Your task to perform on an android device: toggle data saver in the chrome app Image 0: 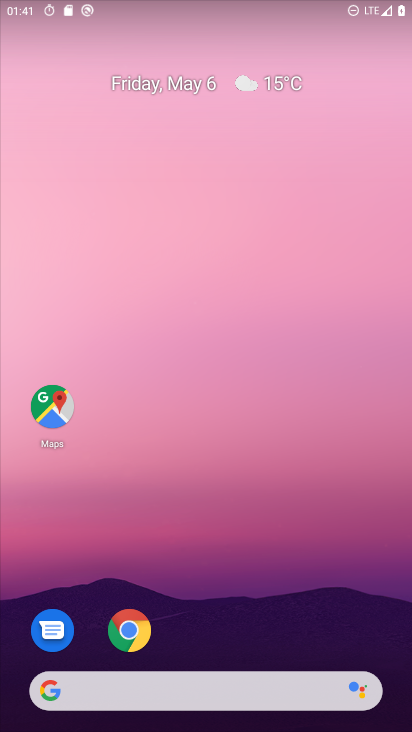
Step 0: click (123, 621)
Your task to perform on an android device: toggle data saver in the chrome app Image 1: 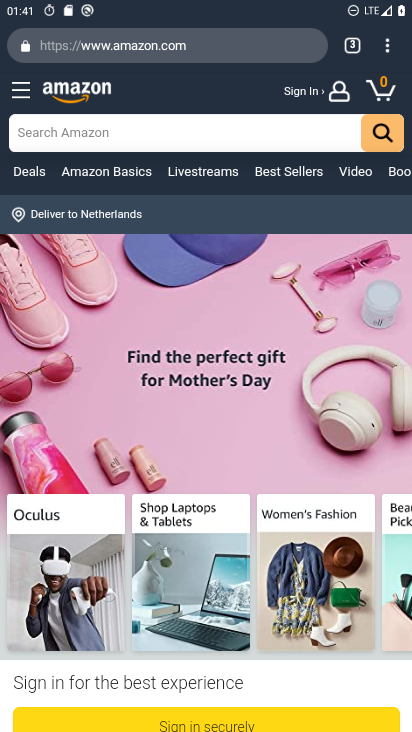
Step 1: click (391, 42)
Your task to perform on an android device: toggle data saver in the chrome app Image 2: 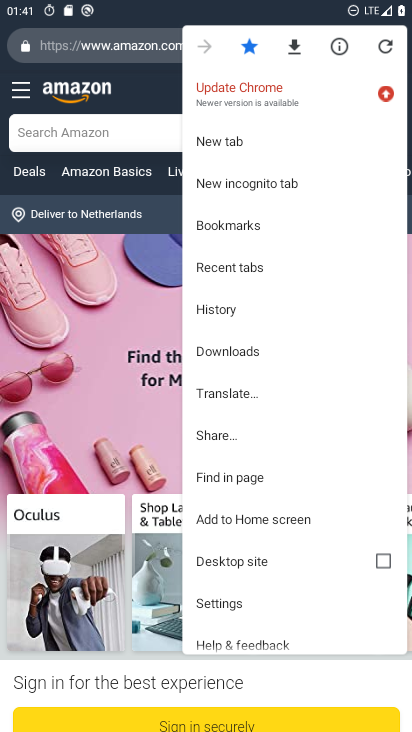
Step 2: click (235, 602)
Your task to perform on an android device: toggle data saver in the chrome app Image 3: 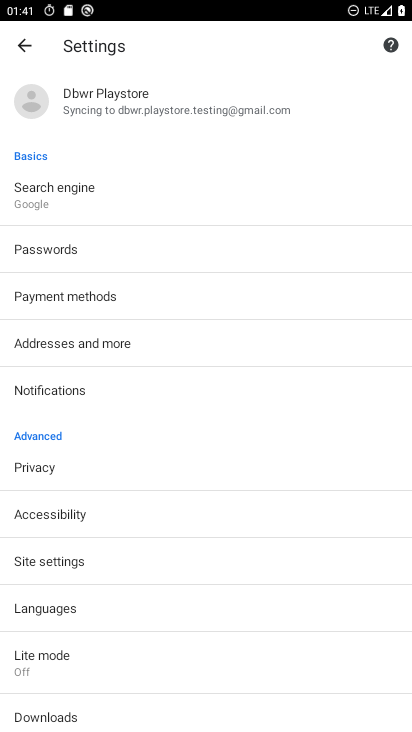
Step 3: click (55, 652)
Your task to perform on an android device: toggle data saver in the chrome app Image 4: 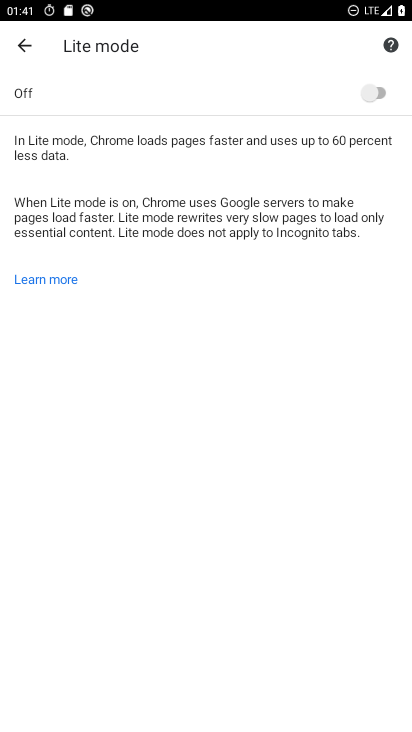
Step 4: click (369, 87)
Your task to perform on an android device: toggle data saver in the chrome app Image 5: 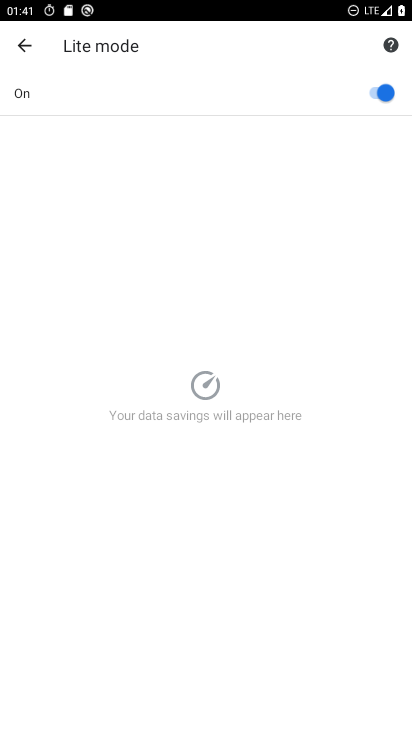
Step 5: task complete